Your task to perform on an android device: Clear all items from cart on ebay.com. Add beats solo 3 to the cart on ebay.com, then select checkout. Image 0: 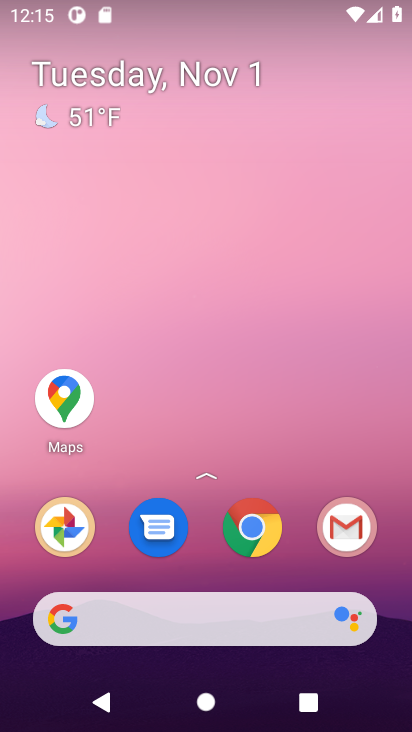
Step 0: click (248, 530)
Your task to perform on an android device: Clear all items from cart on ebay.com. Add beats solo 3 to the cart on ebay.com, then select checkout. Image 1: 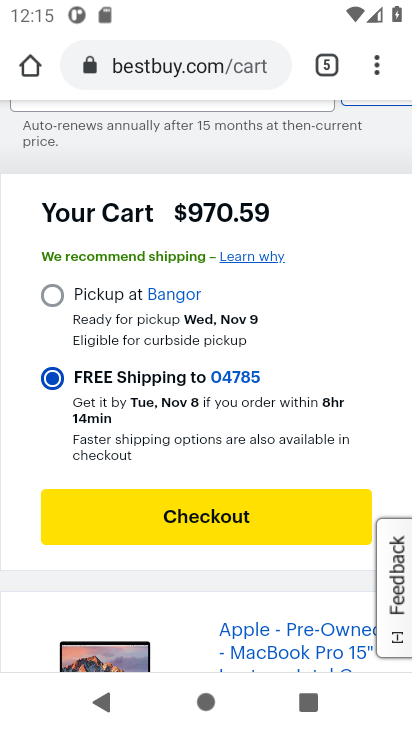
Step 1: click (175, 40)
Your task to perform on an android device: Clear all items from cart on ebay.com. Add beats solo 3 to the cart on ebay.com, then select checkout. Image 2: 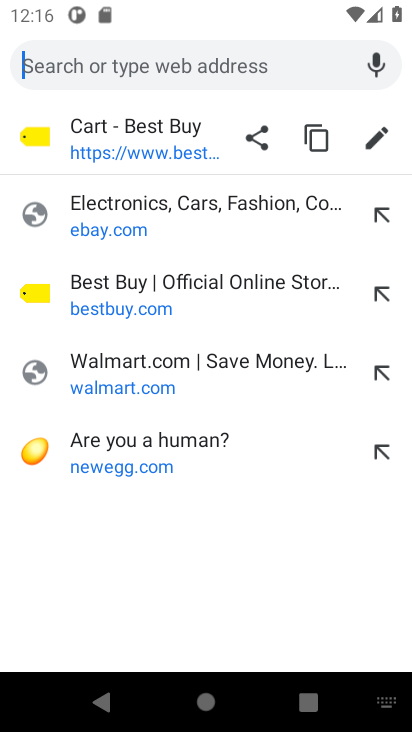
Step 2: type "ebay.com"
Your task to perform on an android device: Clear all items from cart on ebay.com. Add beats solo 3 to the cart on ebay.com, then select checkout. Image 3: 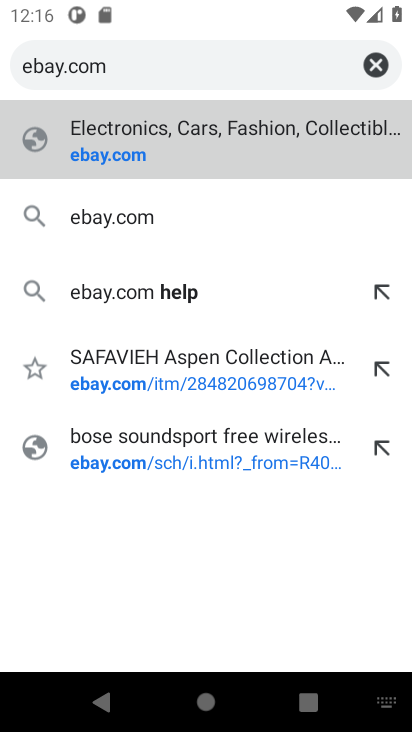
Step 3: click (109, 139)
Your task to perform on an android device: Clear all items from cart on ebay.com. Add beats solo 3 to the cart on ebay.com, then select checkout. Image 4: 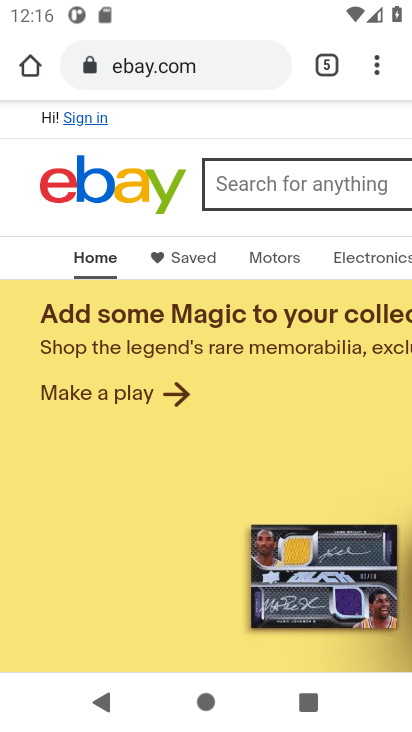
Step 4: drag from (366, 176) to (15, 216)
Your task to perform on an android device: Clear all items from cart on ebay.com. Add beats solo 3 to the cart on ebay.com, then select checkout. Image 5: 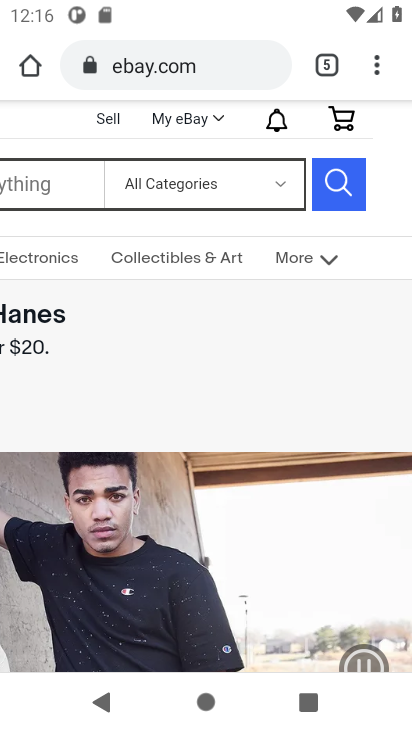
Step 5: click (333, 122)
Your task to perform on an android device: Clear all items from cart on ebay.com. Add beats solo 3 to the cart on ebay.com, then select checkout. Image 6: 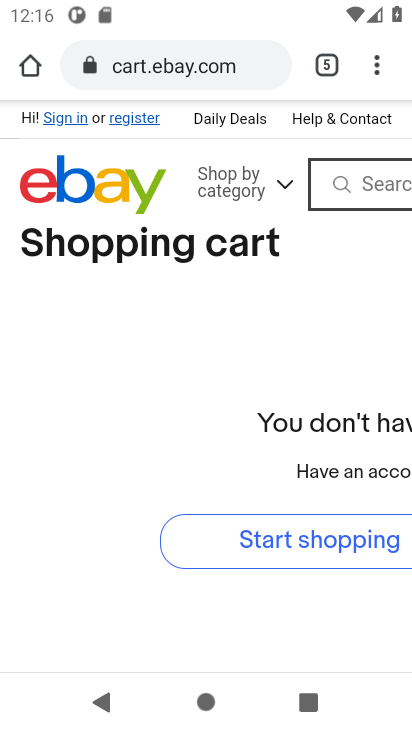
Step 6: click (361, 186)
Your task to perform on an android device: Clear all items from cart on ebay.com. Add beats solo 3 to the cart on ebay.com, then select checkout. Image 7: 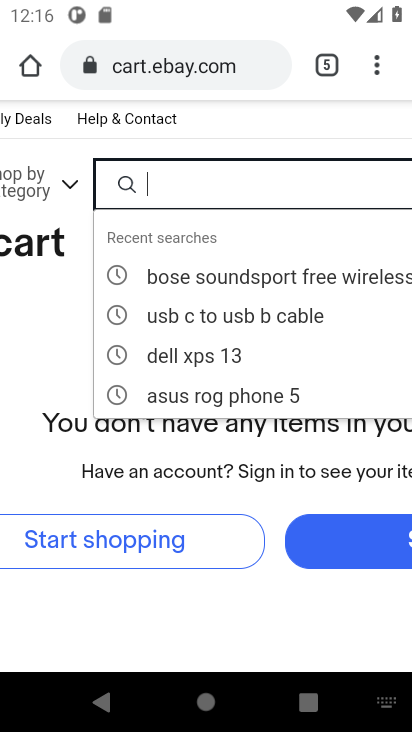
Step 7: type "beats solo 3"
Your task to perform on an android device: Clear all items from cart on ebay.com. Add beats solo 3 to the cart on ebay.com, then select checkout. Image 8: 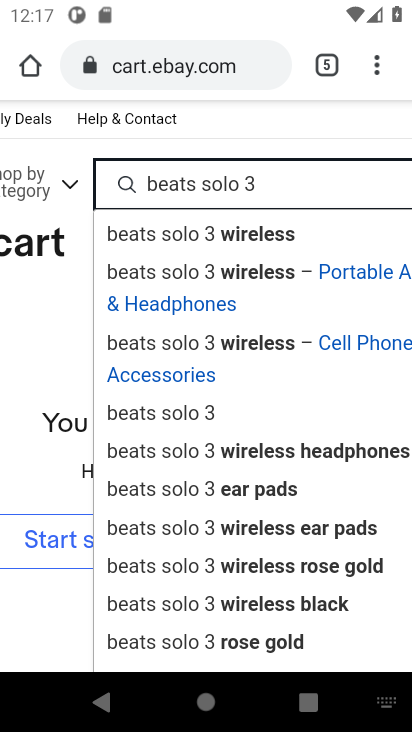
Step 8: click (164, 238)
Your task to perform on an android device: Clear all items from cart on ebay.com. Add beats solo 3 to the cart on ebay.com, then select checkout. Image 9: 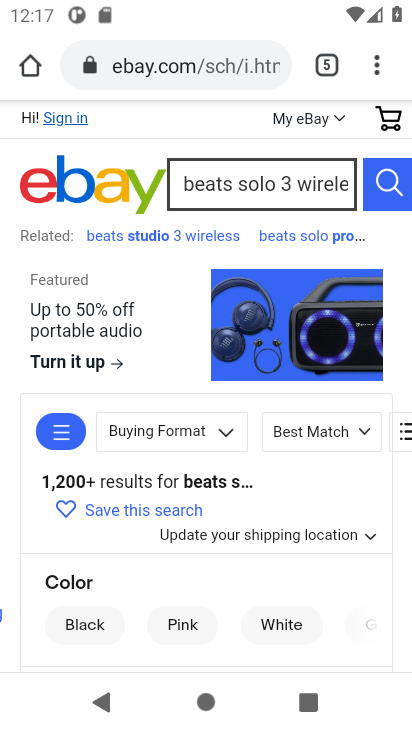
Step 9: drag from (215, 558) to (191, 322)
Your task to perform on an android device: Clear all items from cart on ebay.com. Add beats solo 3 to the cart on ebay.com, then select checkout. Image 10: 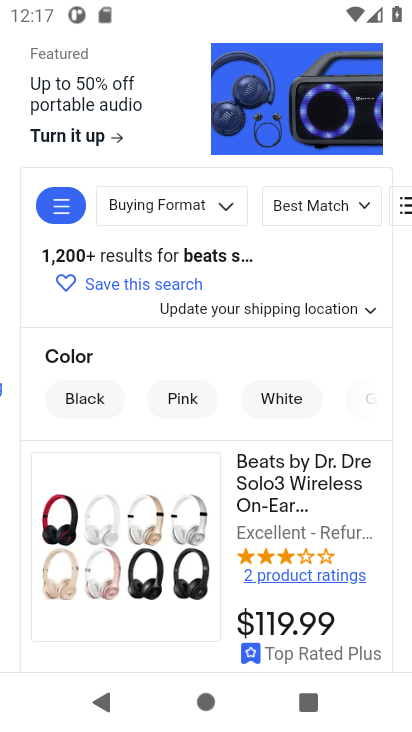
Step 10: drag from (217, 526) to (182, 123)
Your task to perform on an android device: Clear all items from cart on ebay.com. Add beats solo 3 to the cart on ebay.com, then select checkout. Image 11: 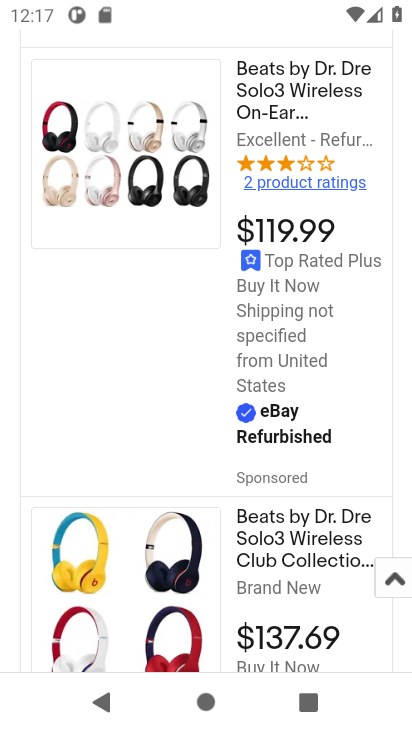
Step 11: click (282, 78)
Your task to perform on an android device: Clear all items from cart on ebay.com. Add beats solo 3 to the cart on ebay.com, then select checkout. Image 12: 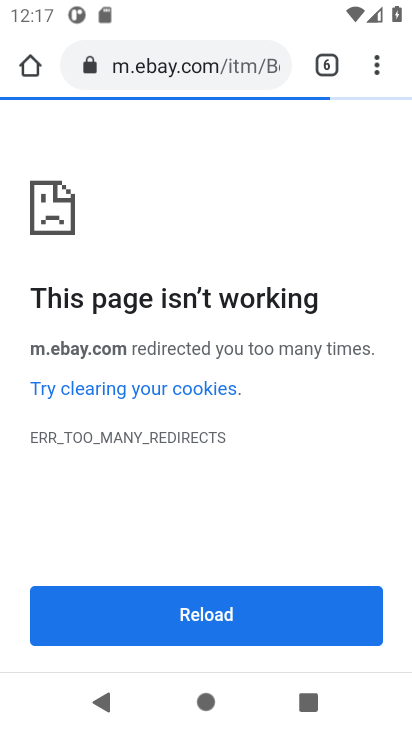
Step 12: task complete